Your task to perform on an android device: Go to battery settings Image 0: 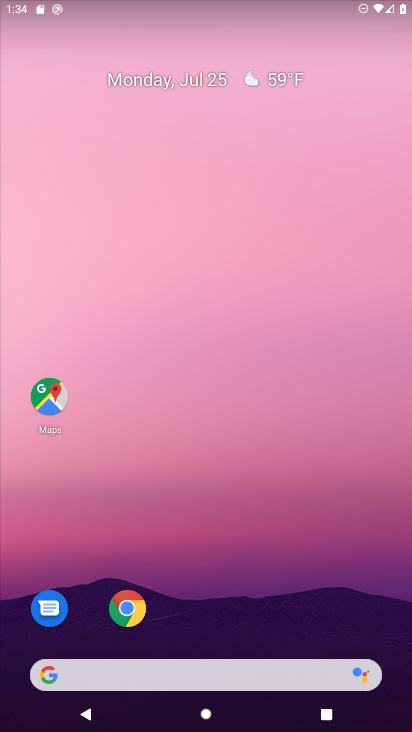
Step 0: drag from (370, 635) to (346, 115)
Your task to perform on an android device: Go to battery settings Image 1: 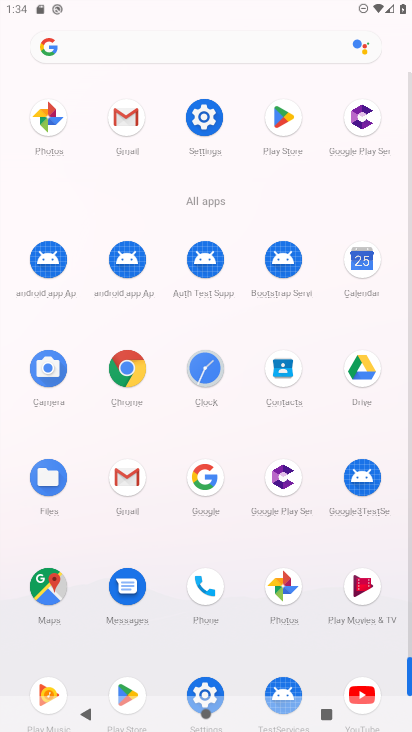
Step 1: click (205, 687)
Your task to perform on an android device: Go to battery settings Image 2: 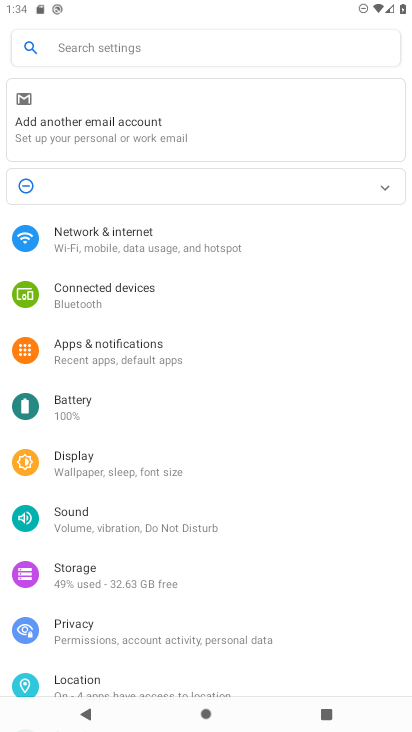
Step 2: click (72, 406)
Your task to perform on an android device: Go to battery settings Image 3: 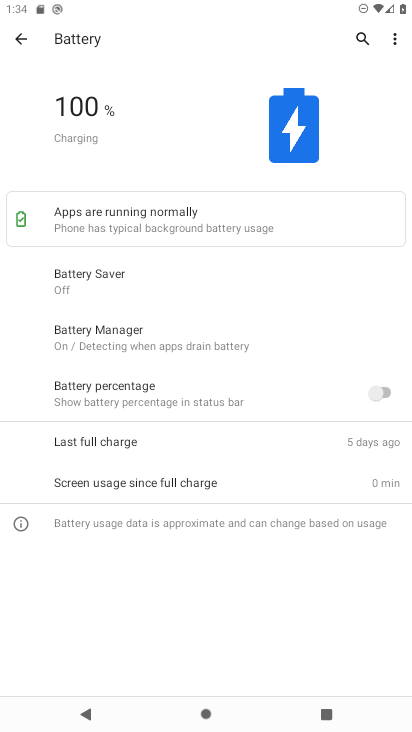
Step 3: click (393, 42)
Your task to perform on an android device: Go to battery settings Image 4: 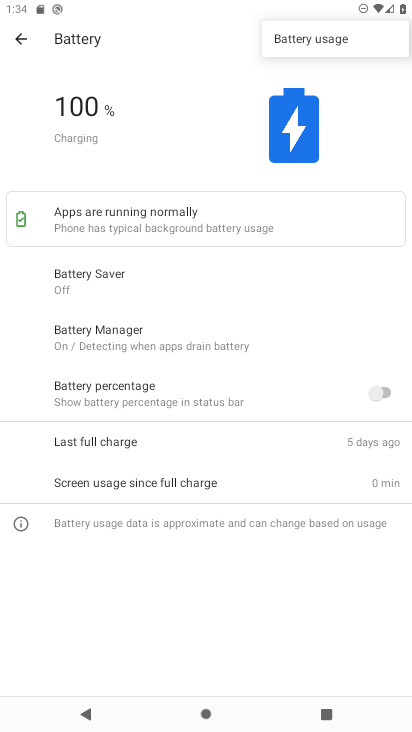
Step 4: task complete